Your task to perform on an android device: clear all cookies in the chrome app Image 0: 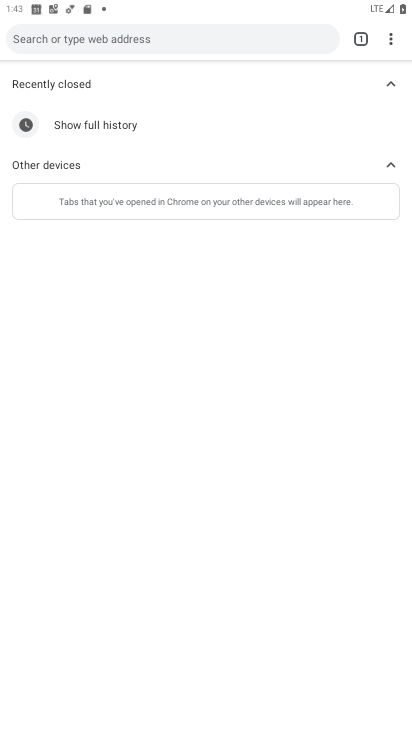
Step 0: press home button
Your task to perform on an android device: clear all cookies in the chrome app Image 1: 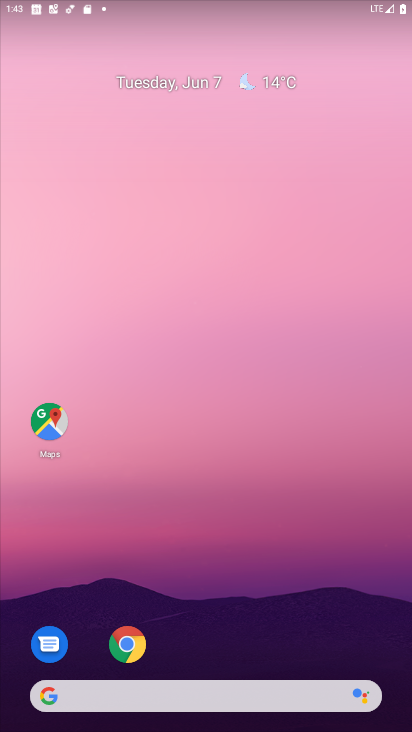
Step 1: click (127, 646)
Your task to perform on an android device: clear all cookies in the chrome app Image 2: 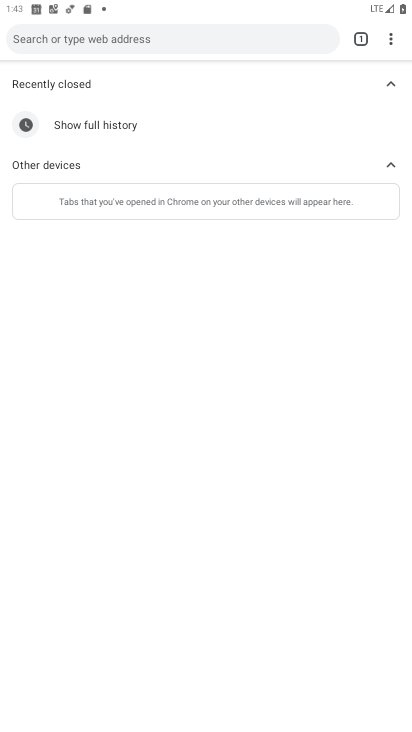
Step 2: click (387, 37)
Your task to perform on an android device: clear all cookies in the chrome app Image 3: 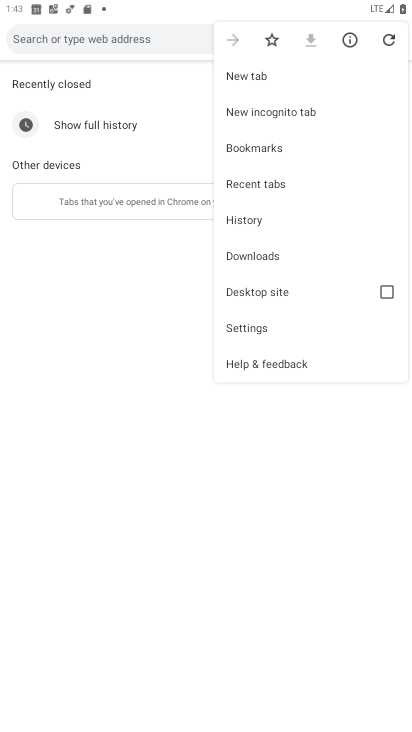
Step 3: click (253, 220)
Your task to perform on an android device: clear all cookies in the chrome app Image 4: 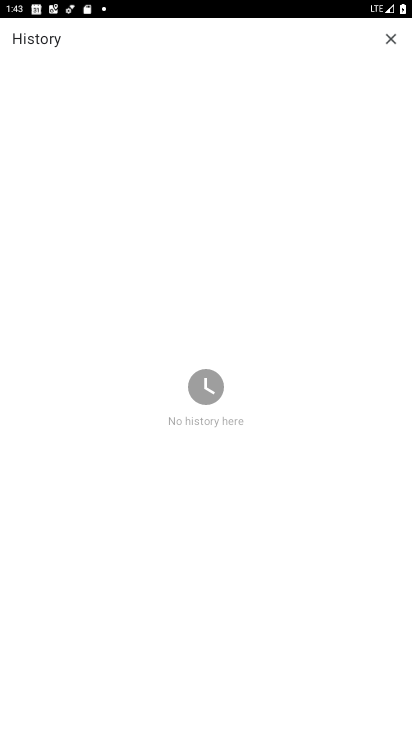
Step 4: task complete